Your task to perform on an android device: show emergency info Image 0: 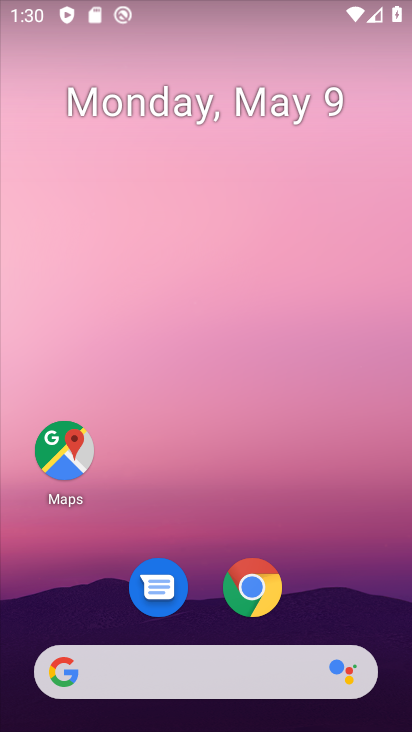
Step 0: drag from (196, 370) to (229, 0)
Your task to perform on an android device: show emergency info Image 1: 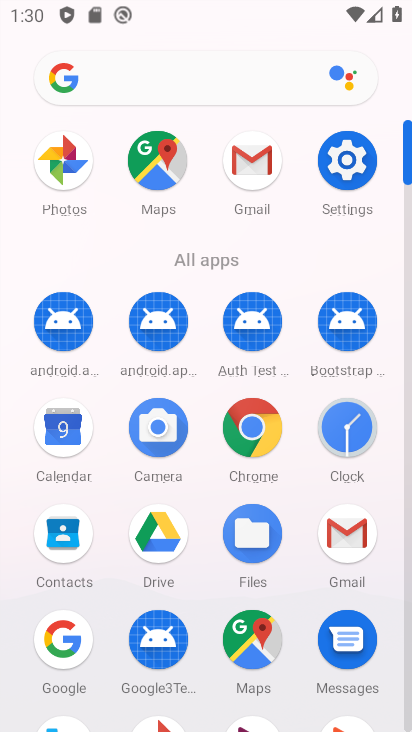
Step 1: click (351, 179)
Your task to perform on an android device: show emergency info Image 2: 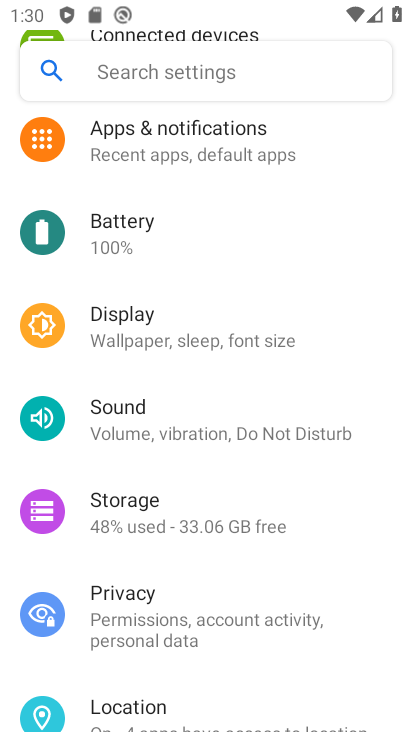
Step 2: drag from (181, 612) to (272, 55)
Your task to perform on an android device: show emergency info Image 3: 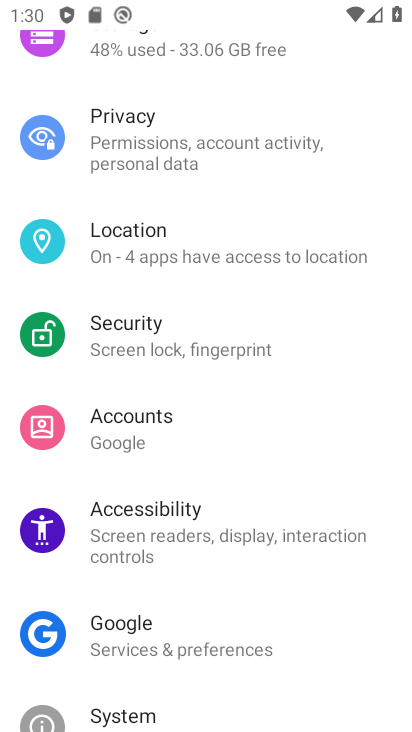
Step 3: drag from (181, 616) to (212, 170)
Your task to perform on an android device: show emergency info Image 4: 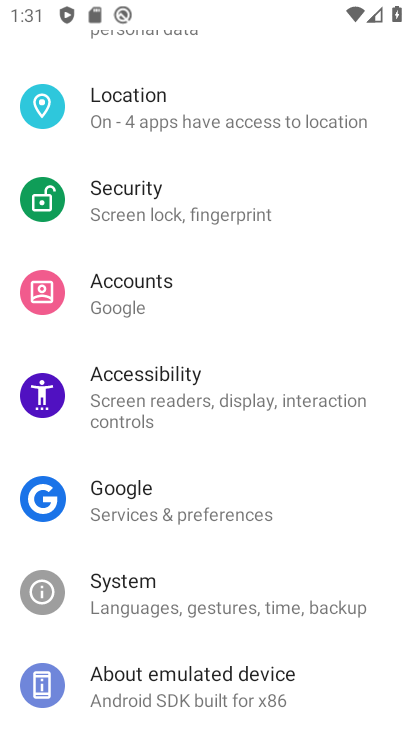
Step 4: click (220, 677)
Your task to perform on an android device: show emergency info Image 5: 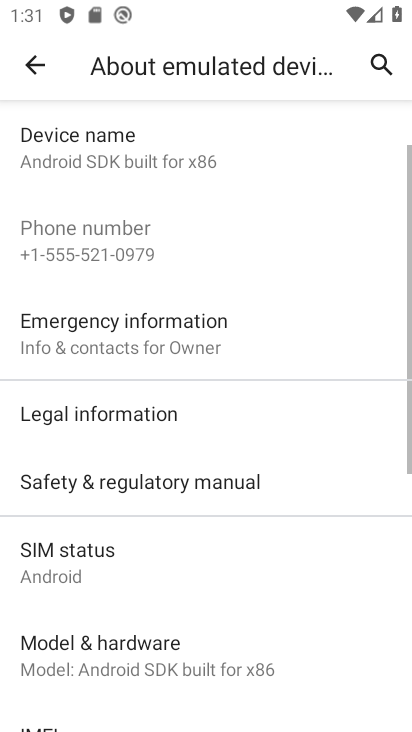
Step 5: drag from (219, 663) to (260, 96)
Your task to perform on an android device: show emergency info Image 6: 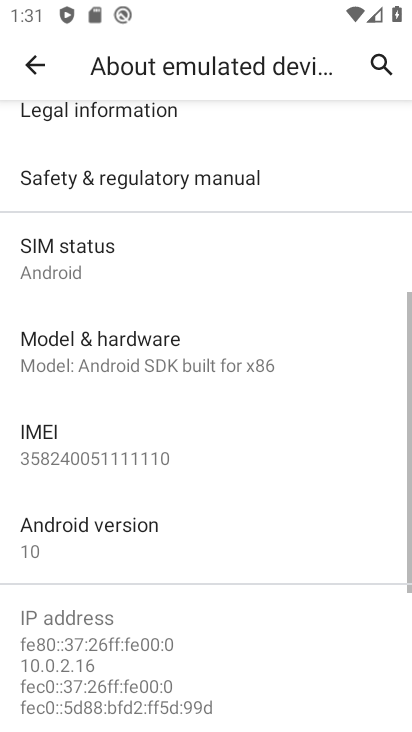
Step 6: drag from (218, 235) to (197, 442)
Your task to perform on an android device: show emergency info Image 7: 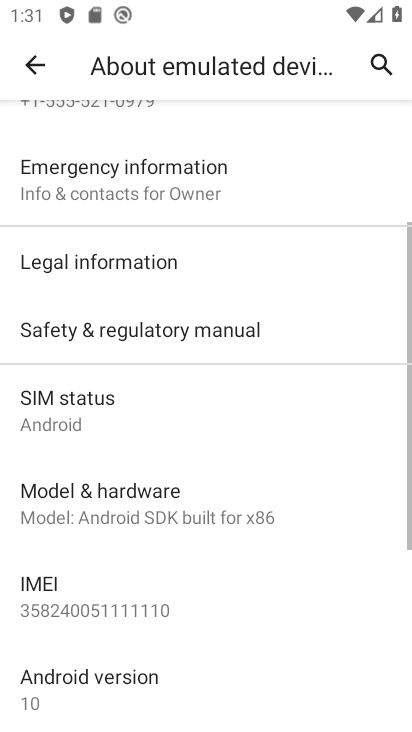
Step 7: click (220, 199)
Your task to perform on an android device: show emergency info Image 8: 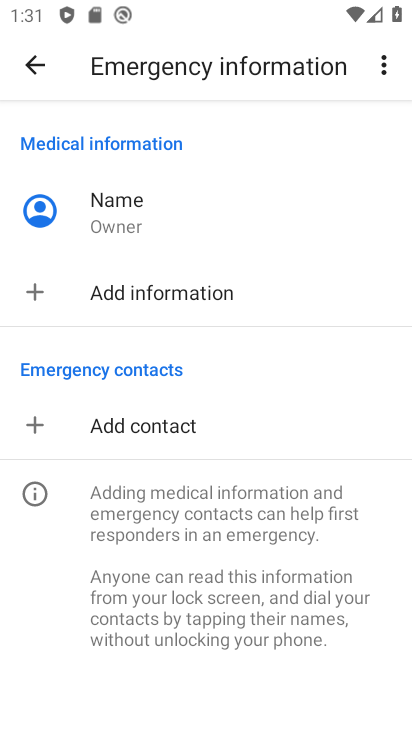
Step 8: task complete